Your task to perform on an android device: Open location settings Image 0: 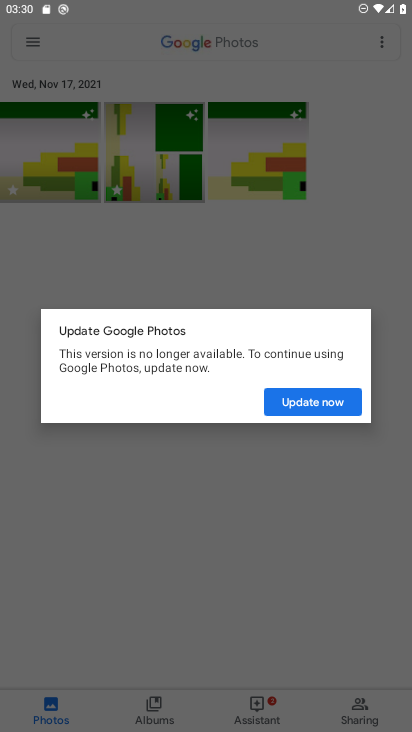
Step 0: press home button
Your task to perform on an android device: Open location settings Image 1: 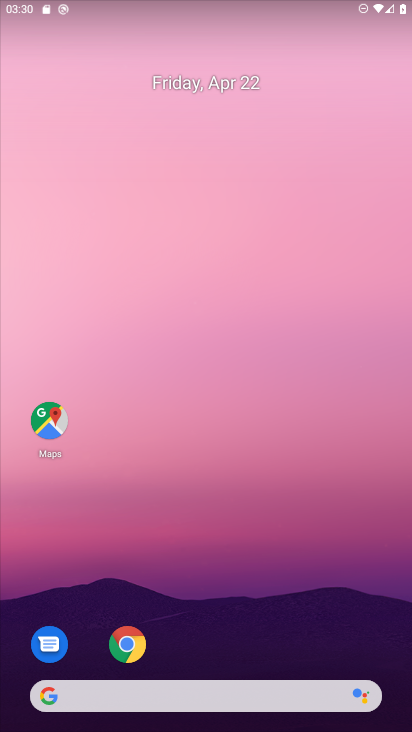
Step 1: drag from (241, 538) to (256, 106)
Your task to perform on an android device: Open location settings Image 2: 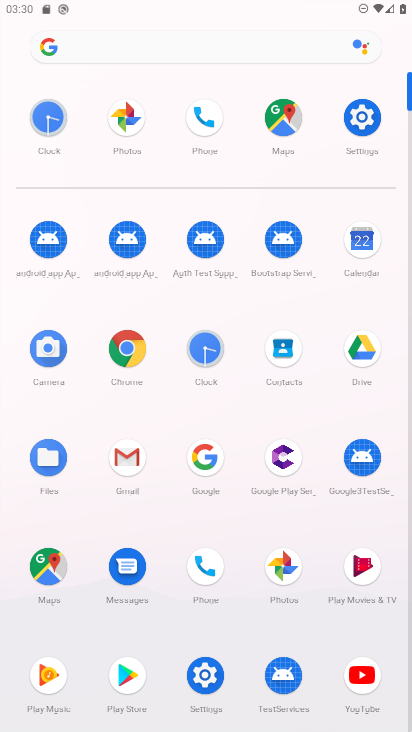
Step 2: click (217, 674)
Your task to perform on an android device: Open location settings Image 3: 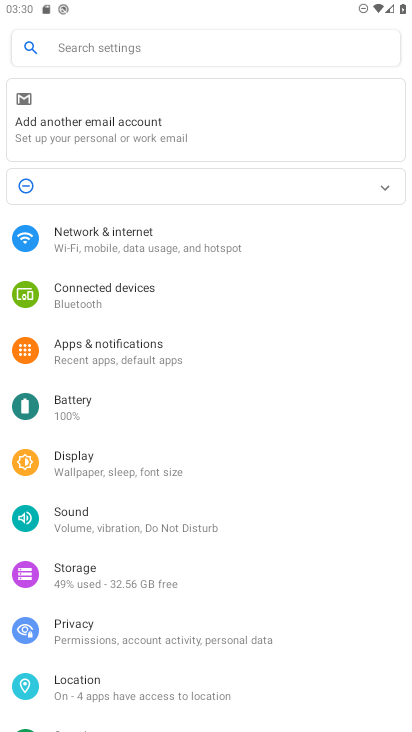
Step 3: drag from (183, 624) to (265, 149)
Your task to perform on an android device: Open location settings Image 4: 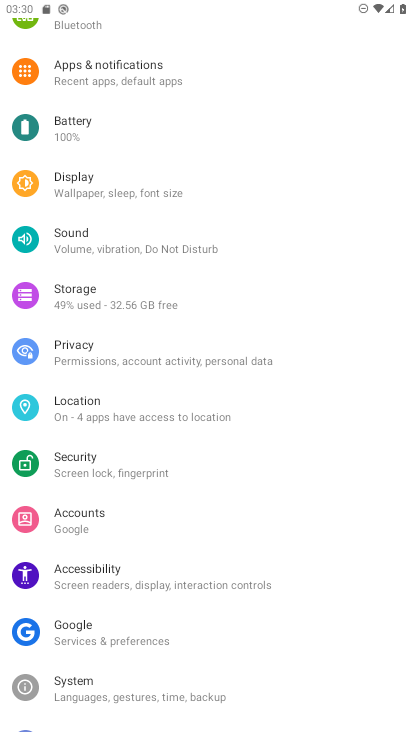
Step 4: click (98, 412)
Your task to perform on an android device: Open location settings Image 5: 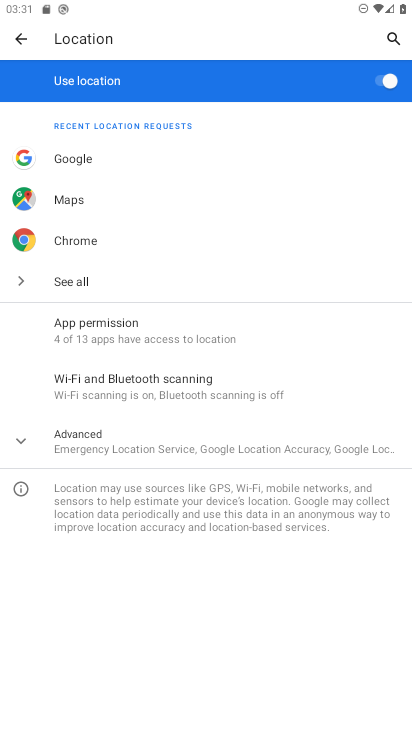
Step 5: click (104, 441)
Your task to perform on an android device: Open location settings Image 6: 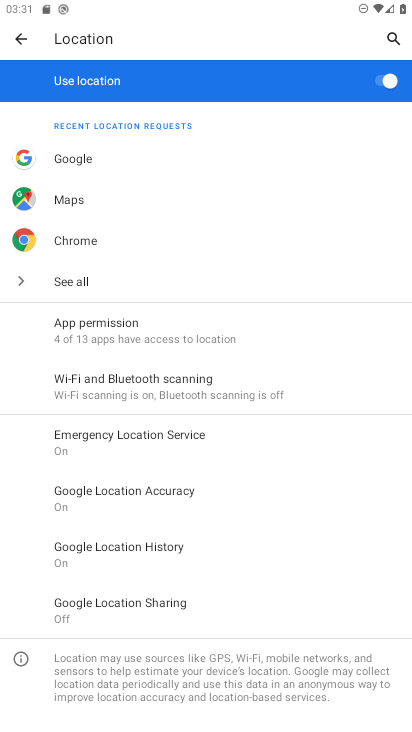
Step 6: task complete